Your task to perform on an android device: Open network settings Image 0: 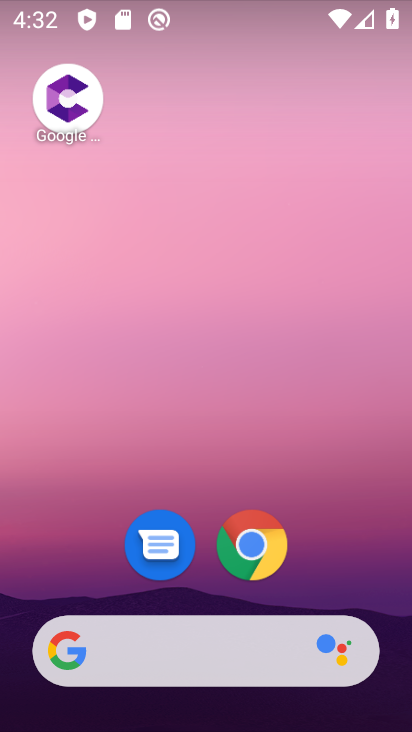
Step 0: drag from (353, 593) to (347, 5)
Your task to perform on an android device: Open network settings Image 1: 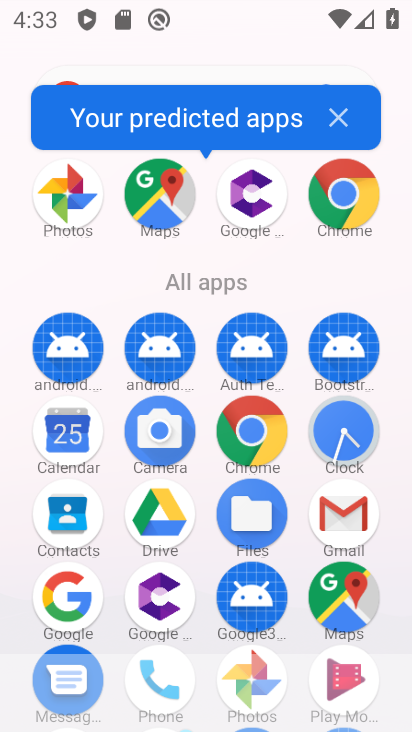
Step 1: drag from (407, 552) to (407, 490)
Your task to perform on an android device: Open network settings Image 2: 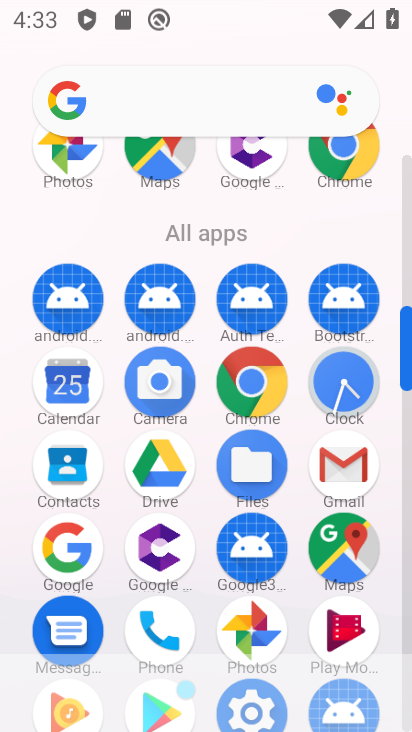
Step 2: drag from (404, 537) to (404, 465)
Your task to perform on an android device: Open network settings Image 3: 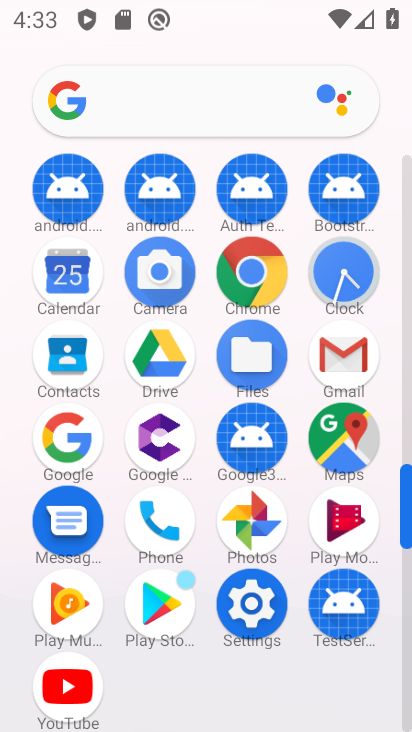
Step 3: click (249, 597)
Your task to perform on an android device: Open network settings Image 4: 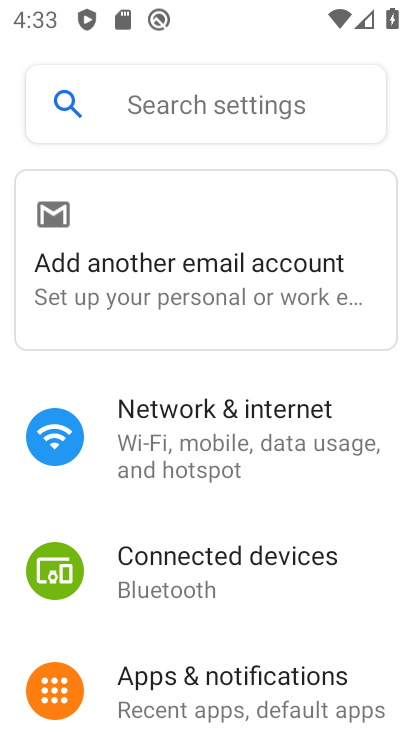
Step 4: click (184, 451)
Your task to perform on an android device: Open network settings Image 5: 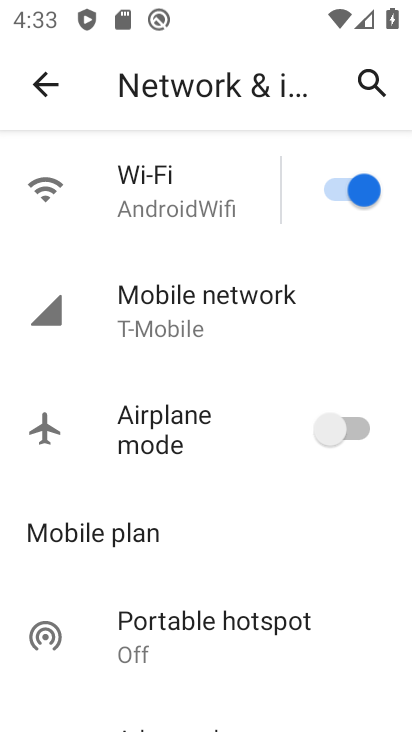
Step 5: click (140, 278)
Your task to perform on an android device: Open network settings Image 6: 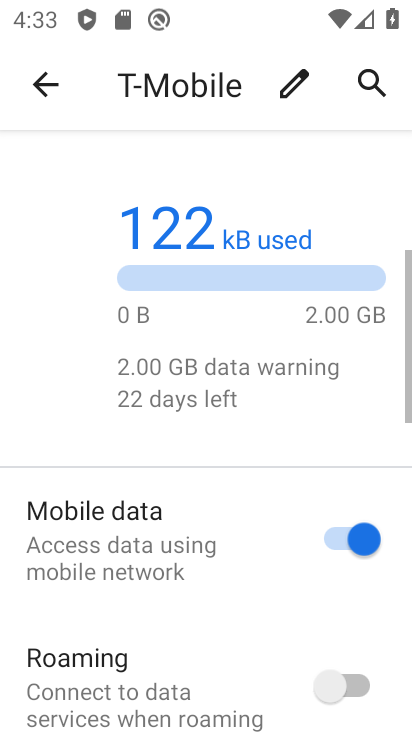
Step 6: drag from (174, 564) to (186, 37)
Your task to perform on an android device: Open network settings Image 7: 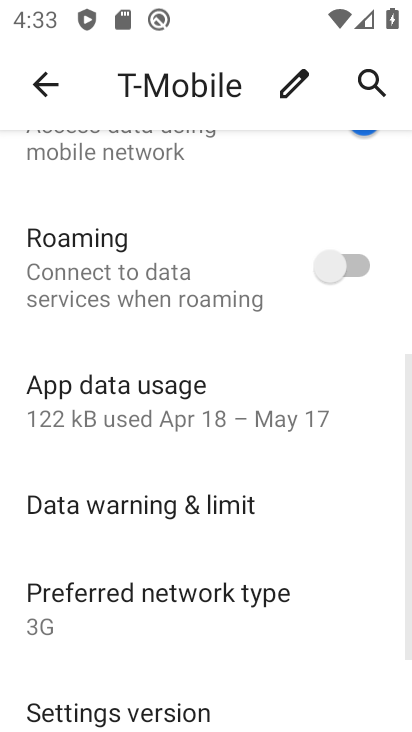
Step 7: drag from (237, 587) to (221, 198)
Your task to perform on an android device: Open network settings Image 8: 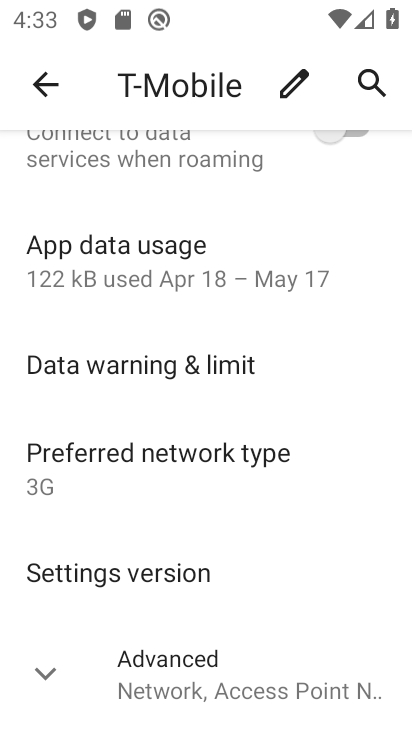
Step 8: click (50, 684)
Your task to perform on an android device: Open network settings Image 9: 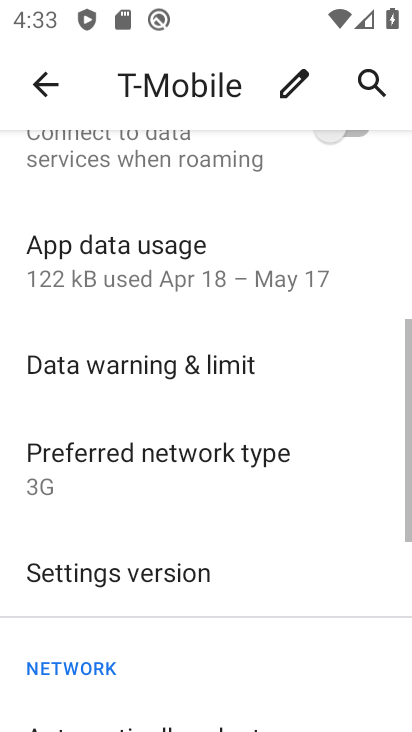
Step 9: task complete